Your task to perform on an android device: Open ESPN.com Image 0: 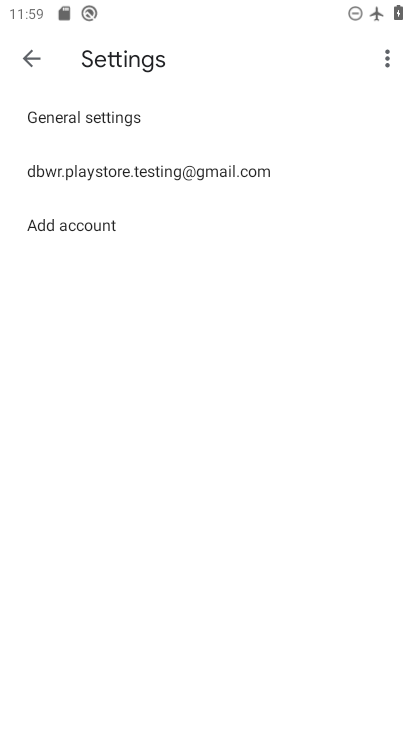
Step 0: press home button
Your task to perform on an android device: Open ESPN.com Image 1: 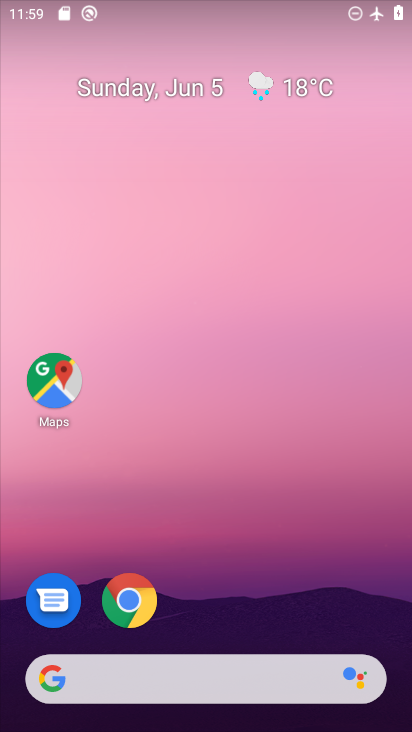
Step 1: click (149, 616)
Your task to perform on an android device: Open ESPN.com Image 2: 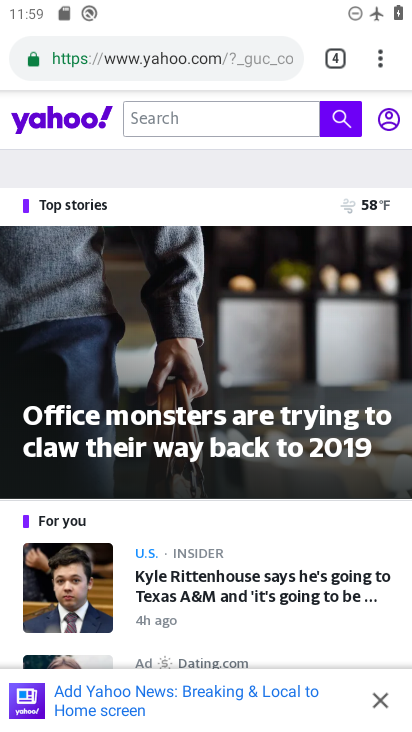
Step 2: click (330, 52)
Your task to perform on an android device: Open ESPN.com Image 3: 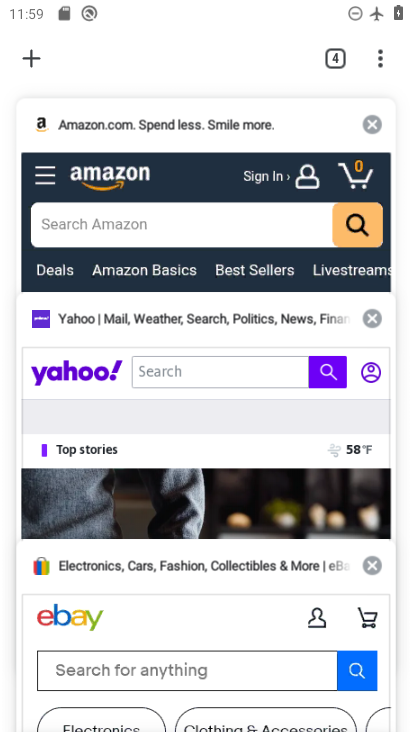
Step 3: click (32, 59)
Your task to perform on an android device: Open ESPN.com Image 4: 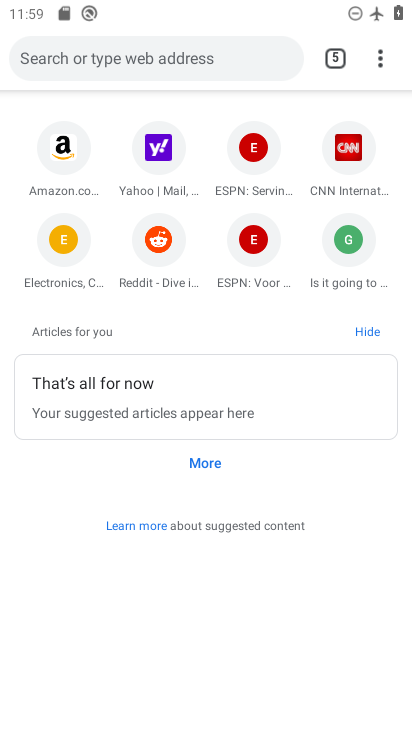
Step 4: click (138, 52)
Your task to perform on an android device: Open ESPN.com Image 5: 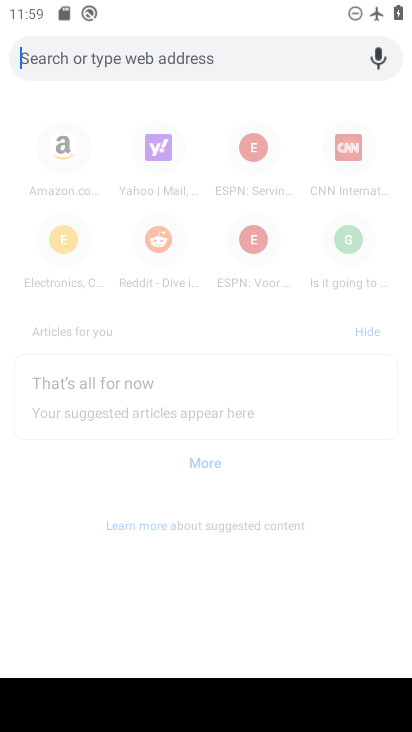
Step 5: type "ESPN.com"
Your task to perform on an android device: Open ESPN.com Image 6: 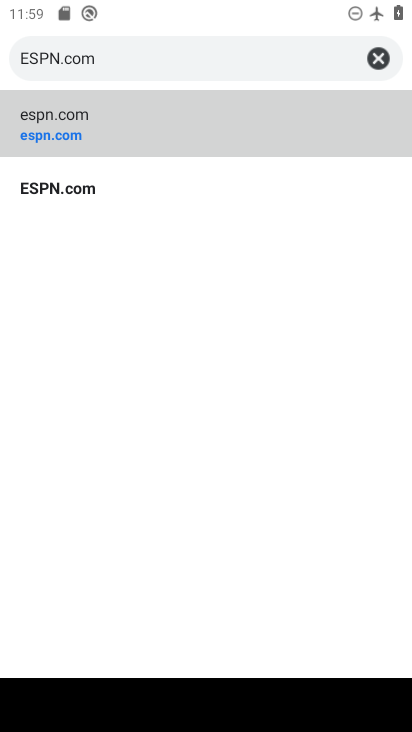
Step 6: click (96, 124)
Your task to perform on an android device: Open ESPN.com Image 7: 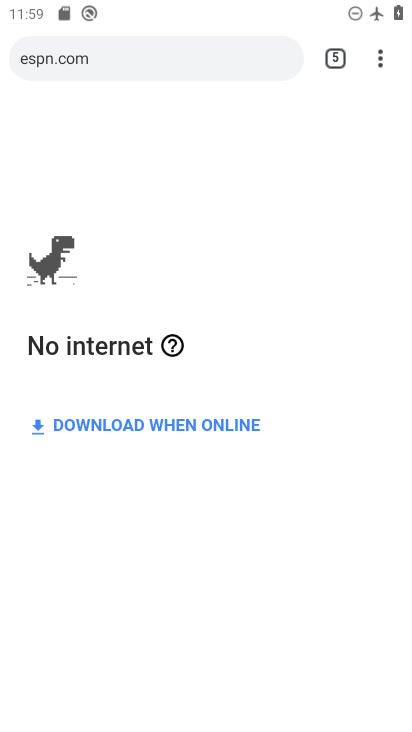
Step 7: task complete